Your task to perform on an android device: open a bookmark in the chrome app Image 0: 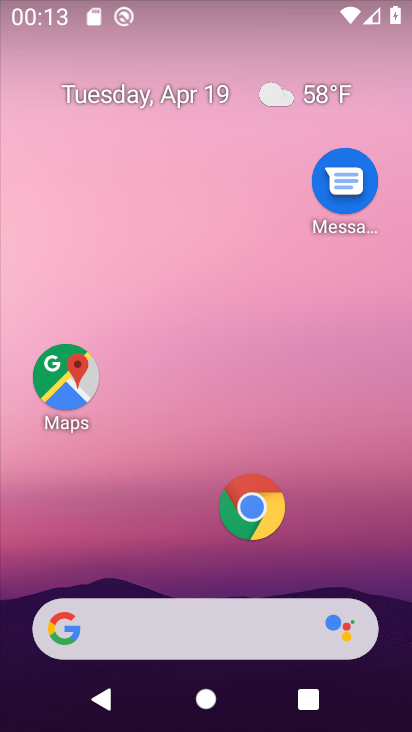
Step 0: click (263, 523)
Your task to perform on an android device: open a bookmark in the chrome app Image 1: 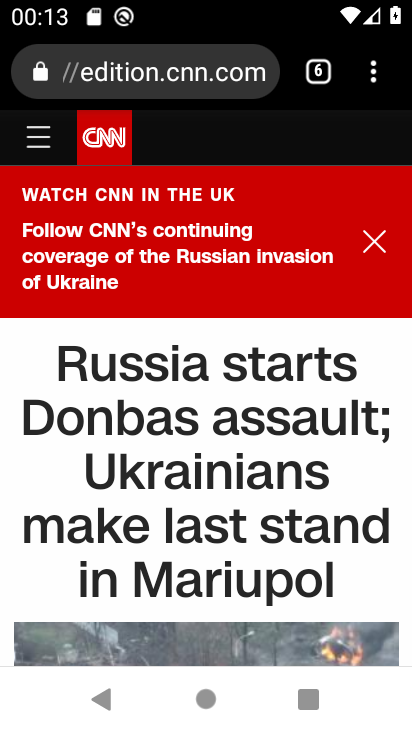
Step 1: click (379, 79)
Your task to perform on an android device: open a bookmark in the chrome app Image 2: 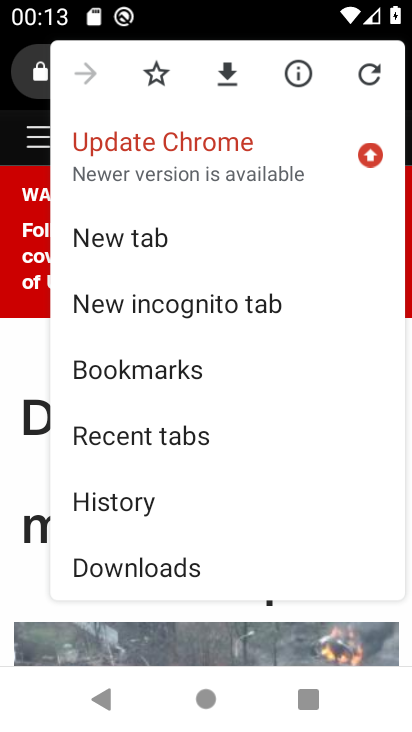
Step 2: click (158, 355)
Your task to perform on an android device: open a bookmark in the chrome app Image 3: 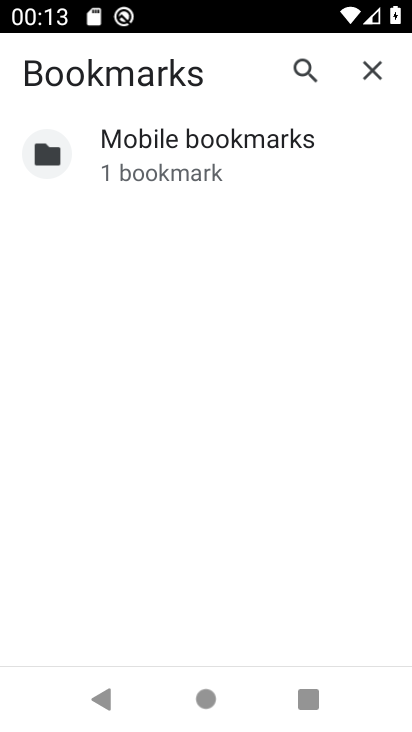
Step 3: click (175, 158)
Your task to perform on an android device: open a bookmark in the chrome app Image 4: 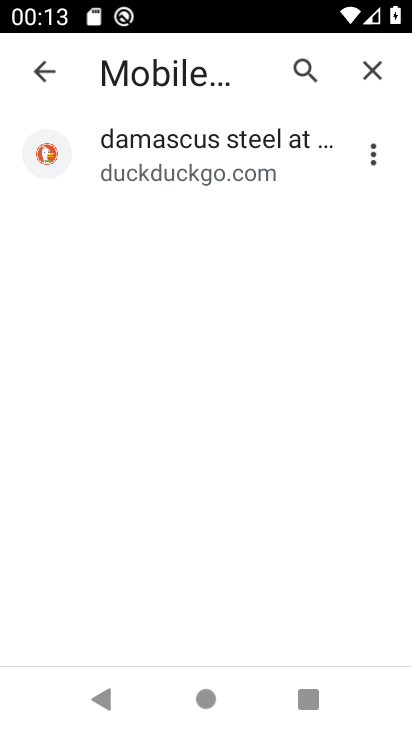
Step 4: click (172, 163)
Your task to perform on an android device: open a bookmark in the chrome app Image 5: 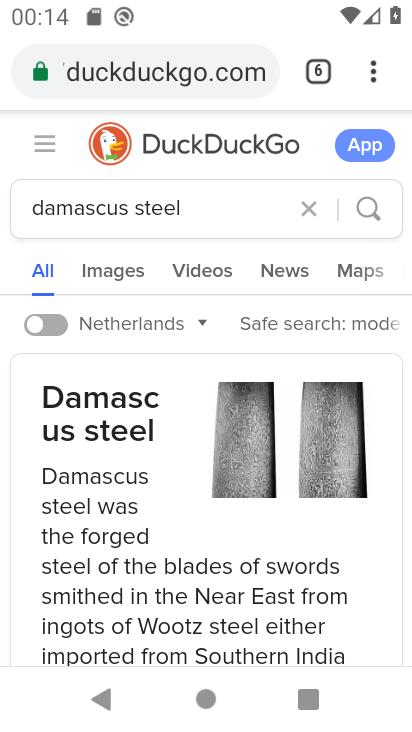
Step 5: task complete